Your task to perform on an android device: Search for razer blade on ebay.com, select the first entry, add it to the cart, then select checkout. Image 0: 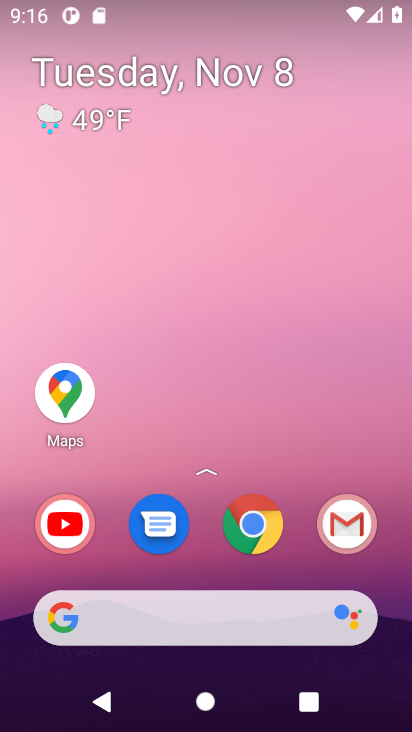
Step 0: click (259, 539)
Your task to perform on an android device: Search for razer blade on ebay.com, select the first entry, add it to the cart, then select checkout. Image 1: 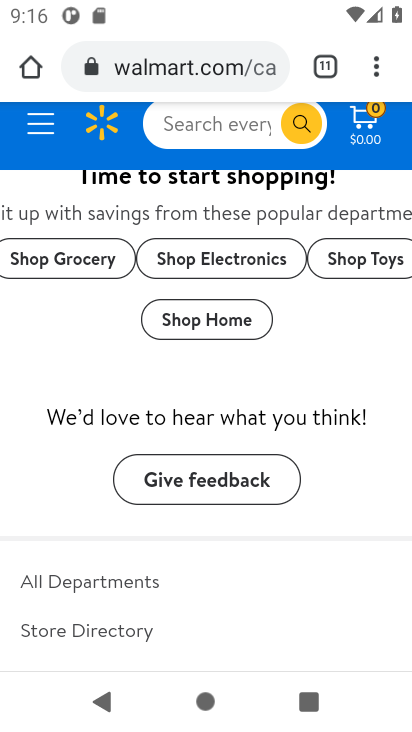
Step 1: click (186, 58)
Your task to perform on an android device: Search for razer blade on ebay.com, select the first entry, add it to the cart, then select checkout. Image 2: 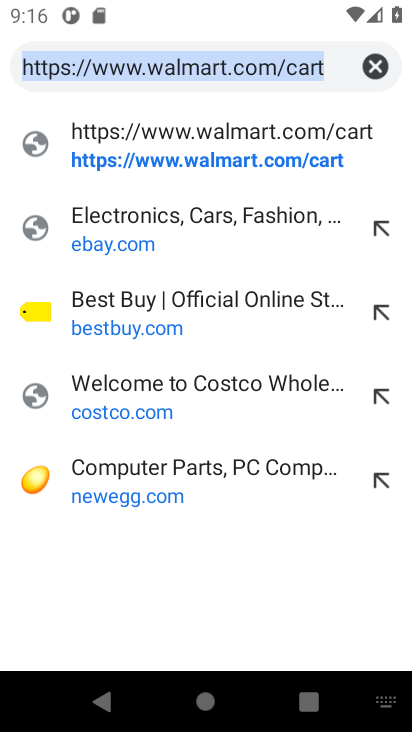
Step 2: click (101, 234)
Your task to perform on an android device: Search for razer blade on ebay.com, select the first entry, add it to the cart, then select checkout. Image 3: 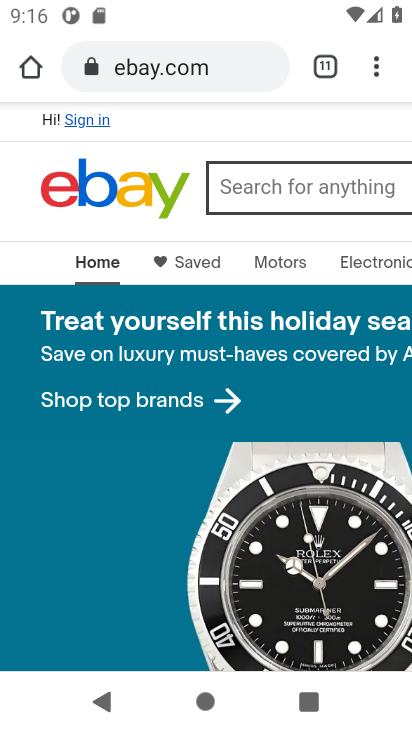
Step 3: click (284, 188)
Your task to perform on an android device: Search for razer blade on ebay.com, select the first entry, add it to the cart, then select checkout. Image 4: 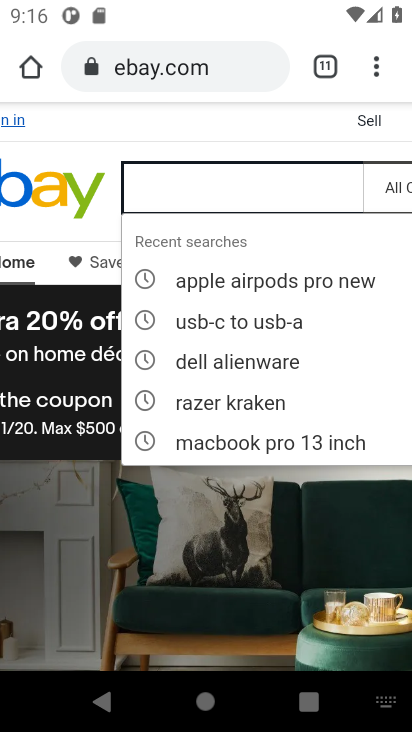
Step 4: type "razer blade"
Your task to perform on an android device: Search for razer blade on ebay.com, select the first entry, add it to the cart, then select checkout. Image 5: 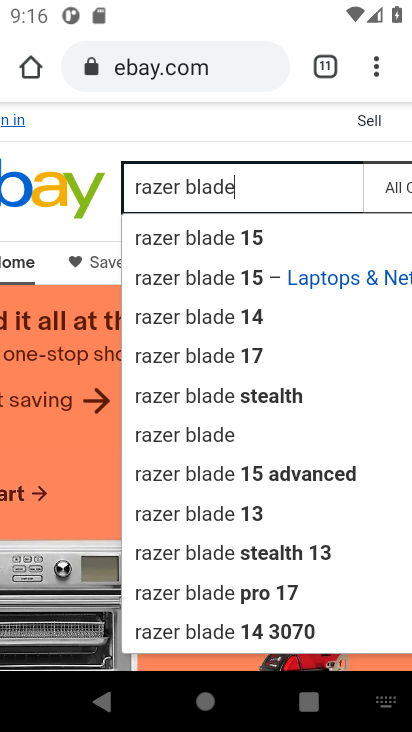
Step 5: click (200, 438)
Your task to perform on an android device: Search for razer blade on ebay.com, select the first entry, add it to the cart, then select checkout. Image 6: 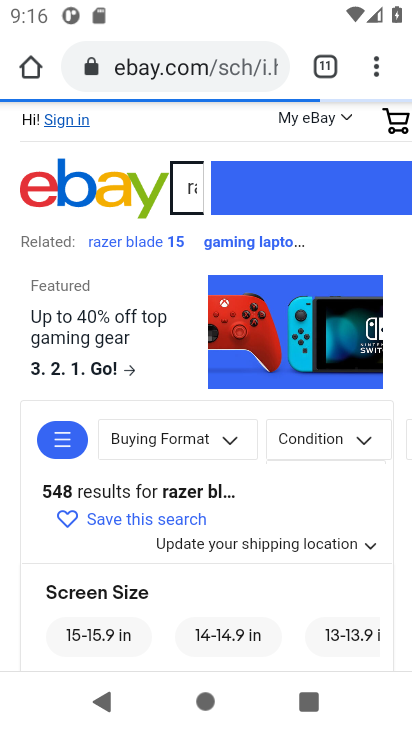
Step 6: drag from (205, 515) to (213, 259)
Your task to perform on an android device: Search for razer blade on ebay.com, select the first entry, add it to the cart, then select checkout. Image 7: 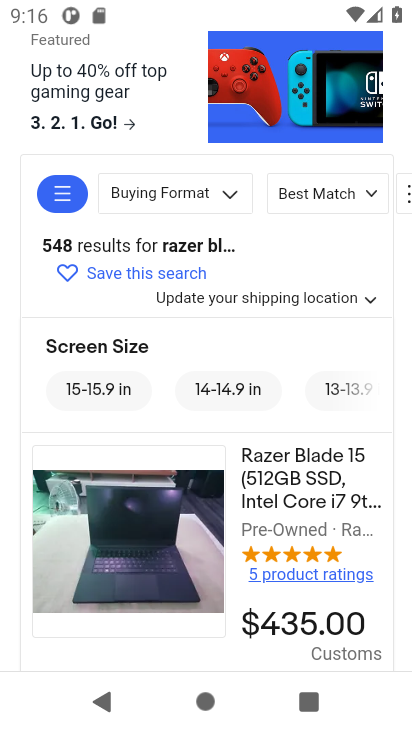
Step 7: drag from (217, 518) to (219, 345)
Your task to perform on an android device: Search for razer blade on ebay.com, select the first entry, add it to the cart, then select checkout. Image 8: 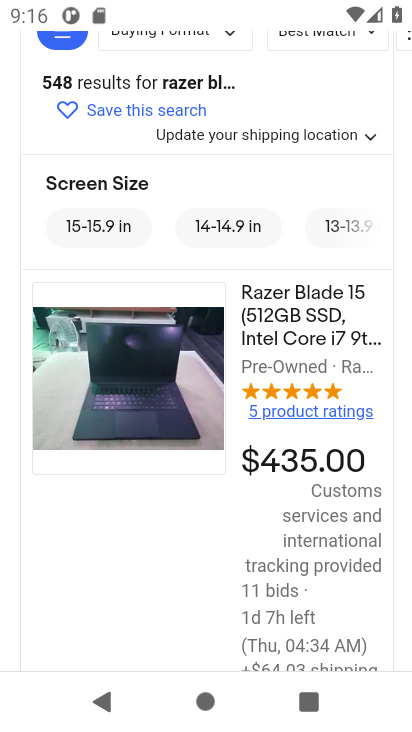
Step 8: click (125, 421)
Your task to perform on an android device: Search for razer blade on ebay.com, select the first entry, add it to the cart, then select checkout. Image 9: 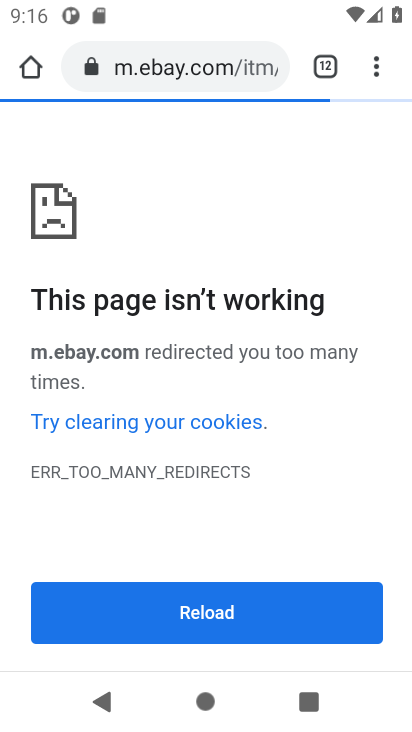
Step 9: click (239, 617)
Your task to perform on an android device: Search for razer blade on ebay.com, select the first entry, add it to the cart, then select checkout. Image 10: 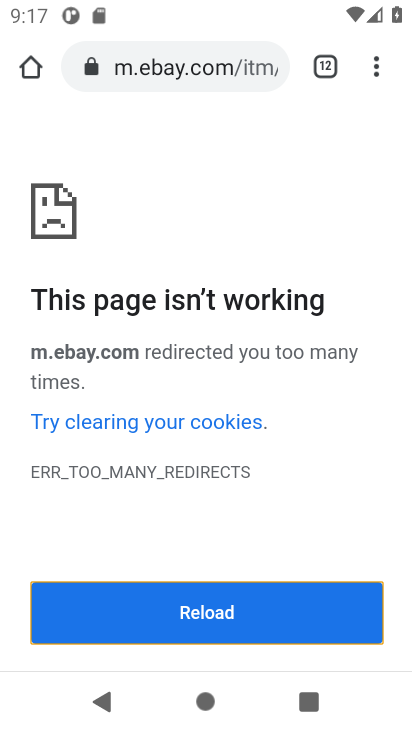
Step 10: task complete